Your task to perform on an android device: open app "DoorDash - Food Delivery" (install if not already installed) and go to login screen Image 0: 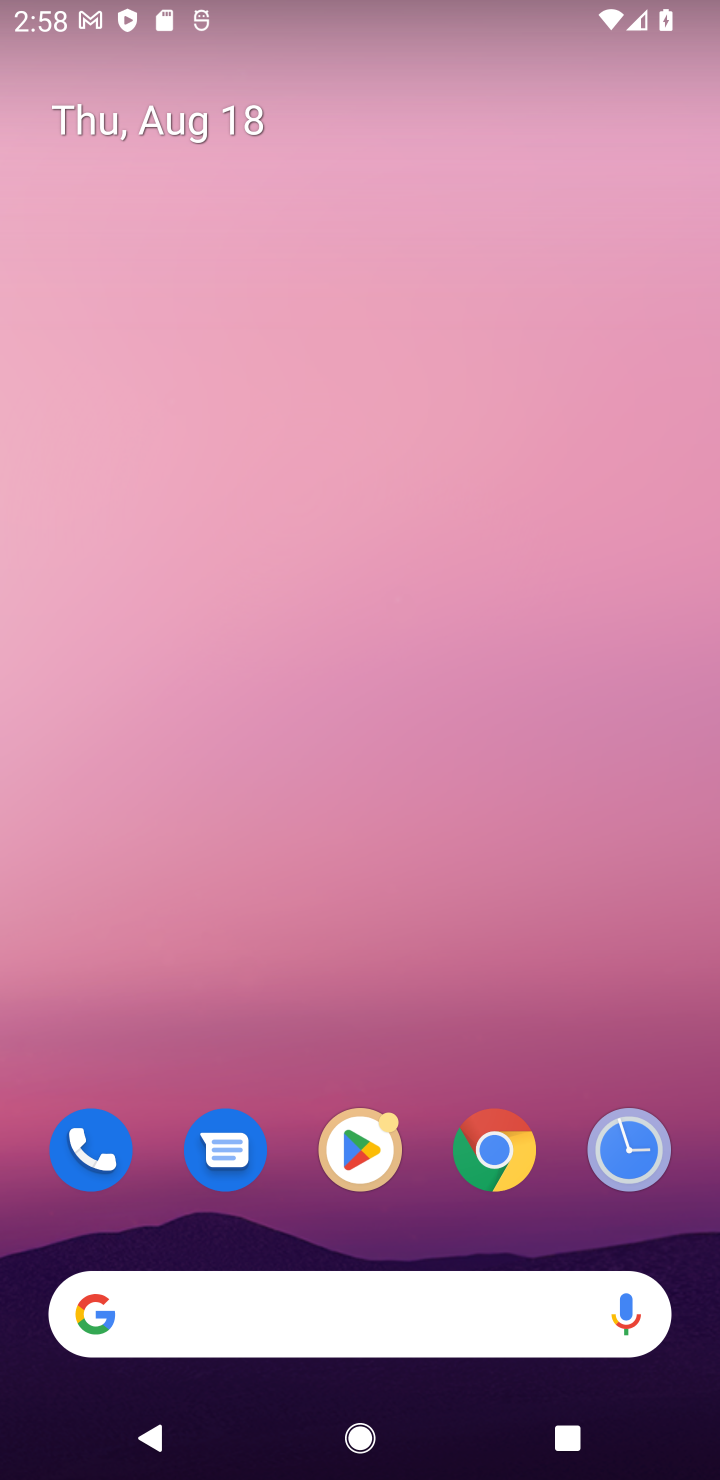
Step 0: click (366, 1150)
Your task to perform on an android device: open app "DoorDash - Food Delivery" (install if not already installed) and go to login screen Image 1: 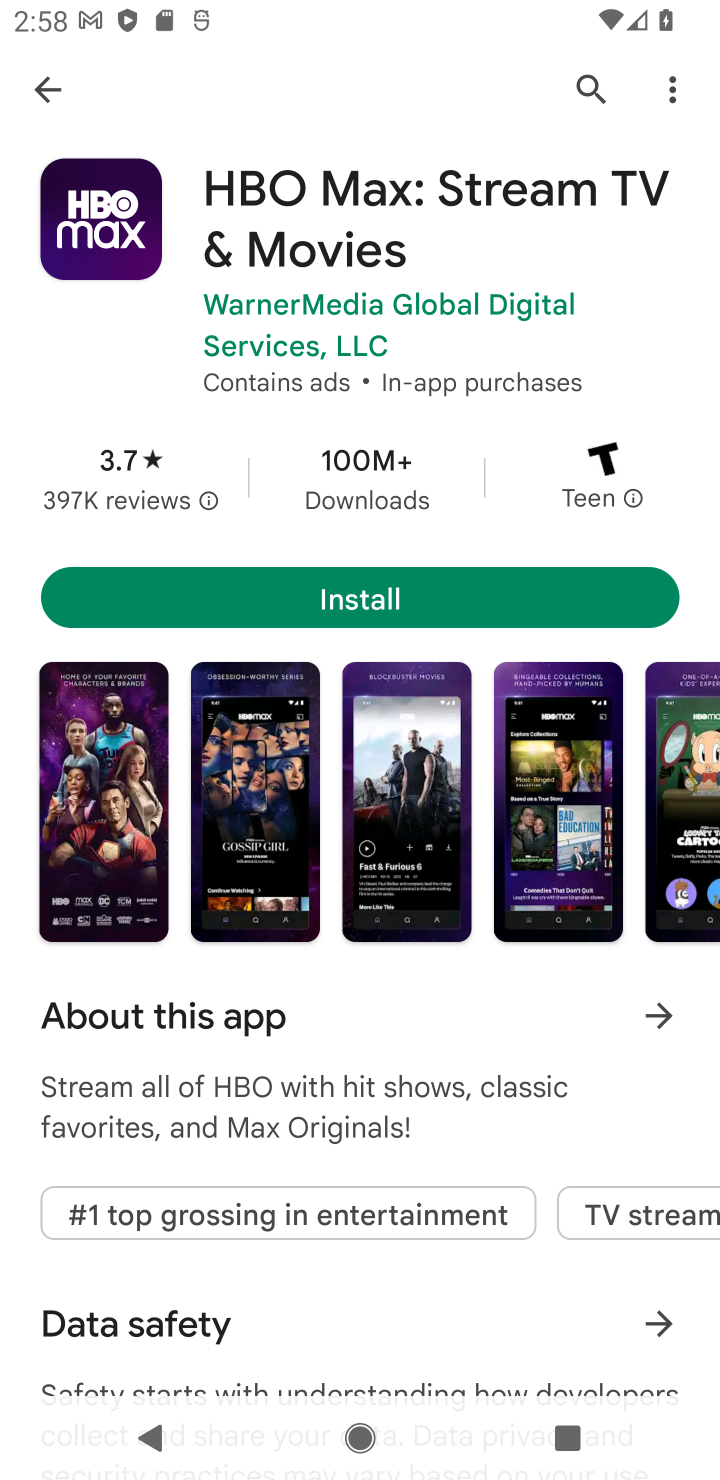
Step 1: click (578, 84)
Your task to perform on an android device: open app "DoorDash - Food Delivery" (install if not already installed) and go to login screen Image 2: 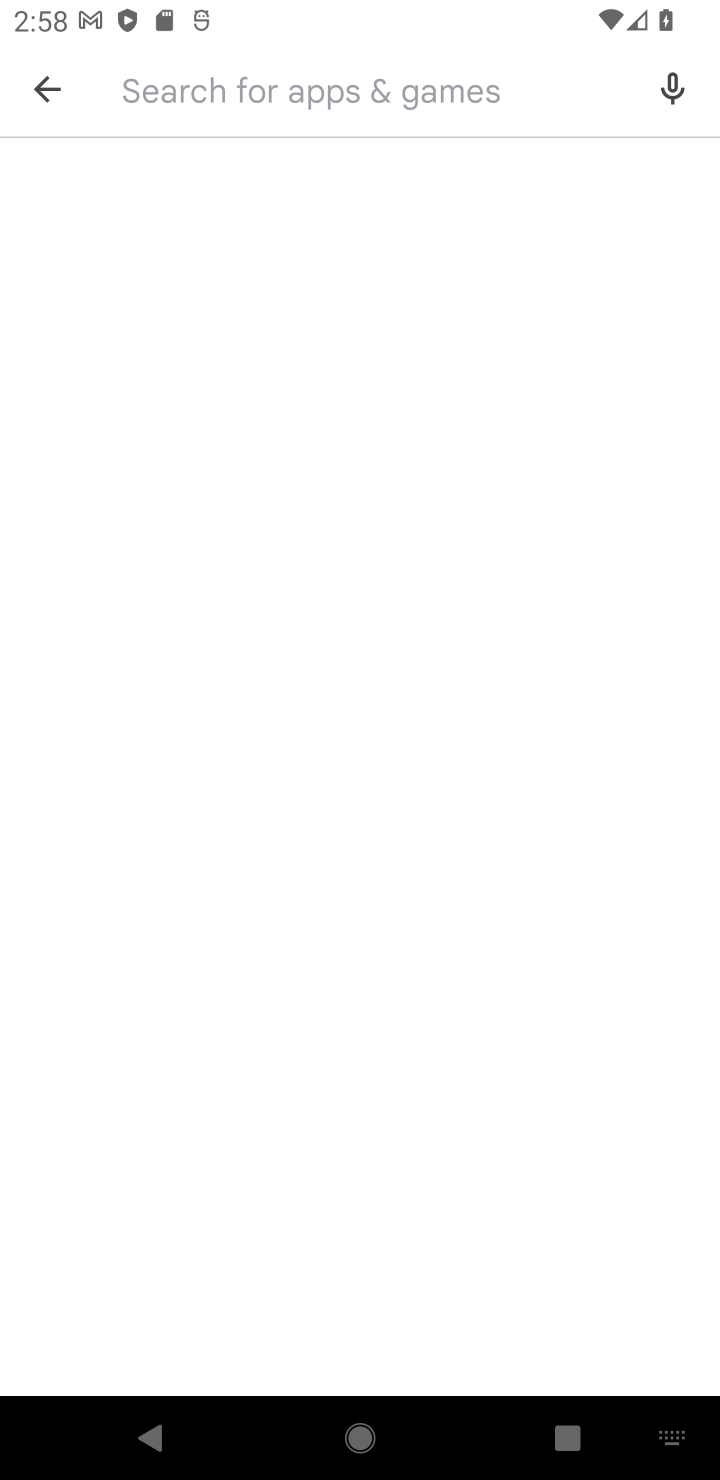
Step 2: type "DoorDash - Food Delivery"
Your task to perform on an android device: open app "DoorDash - Food Delivery" (install if not already installed) and go to login screen Image 3: 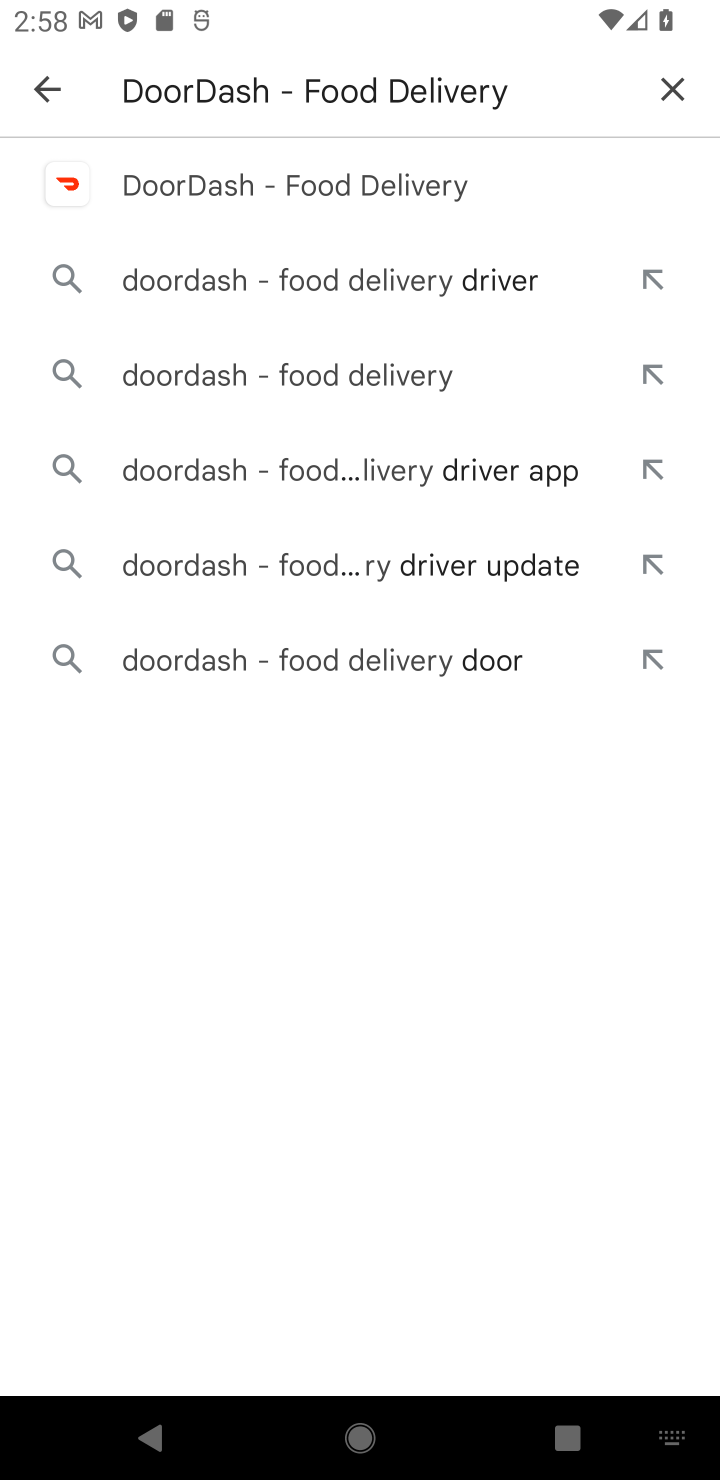
Step 3: click (308, 186)
Your task to perform on an android device: open app "DoorDash - Food Delivery" (install if not already installed) and go to login screen Image 4: 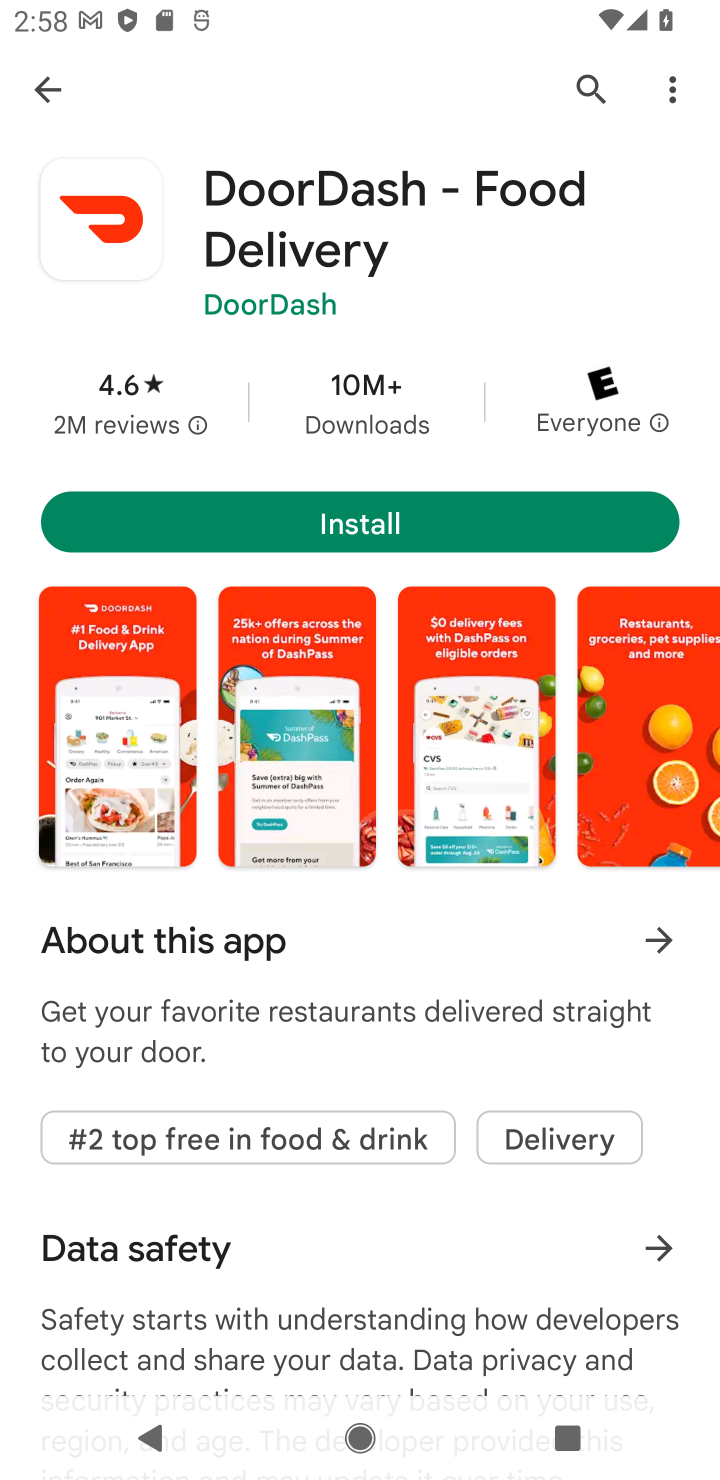
Step 4: click (349, 529)
Your task to perform on an android device: open app "DoorDash - Food Delivery" (install if not already installed) and go to login screen Image 5: 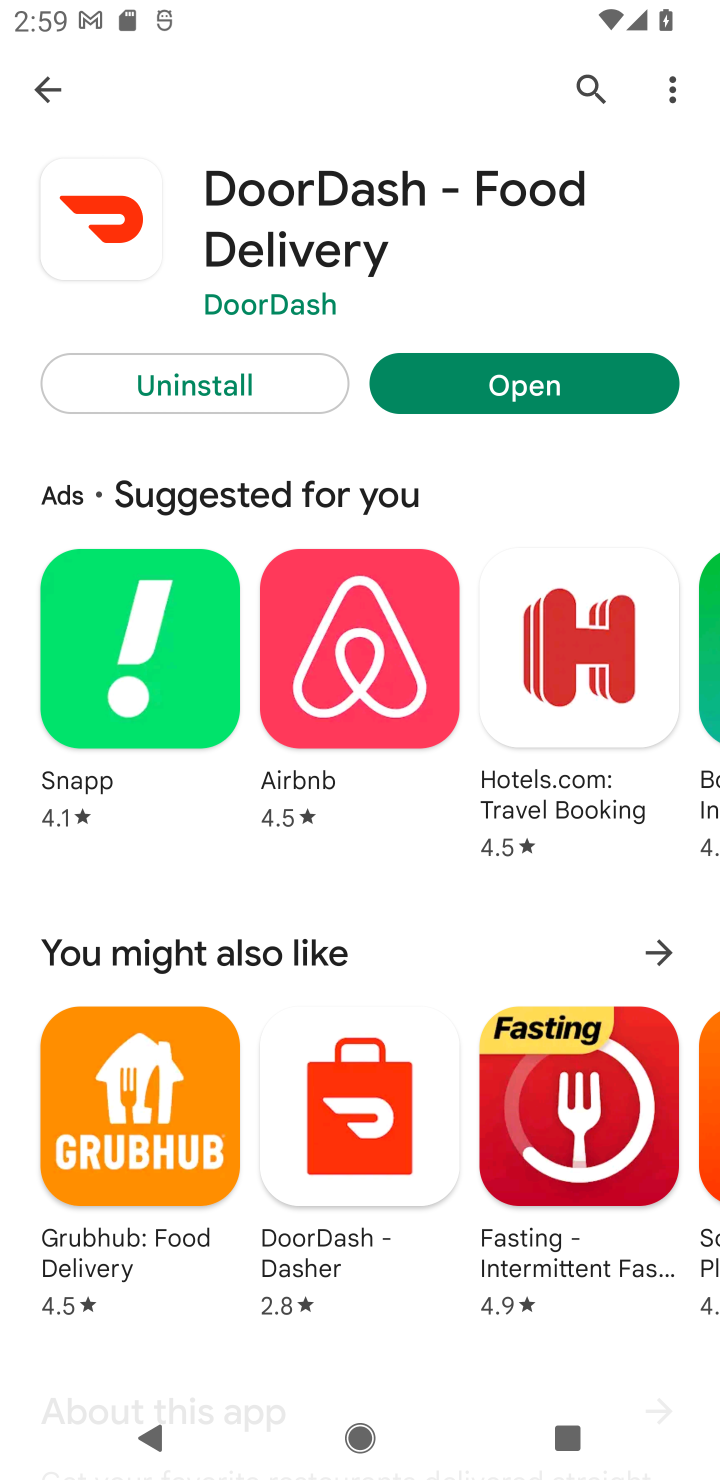
Step 5: click (526, 384)
Your task to perform on an android device: open app "DoorDash - Food Delivery" (install if not already installed) and go to login screen Image 6: 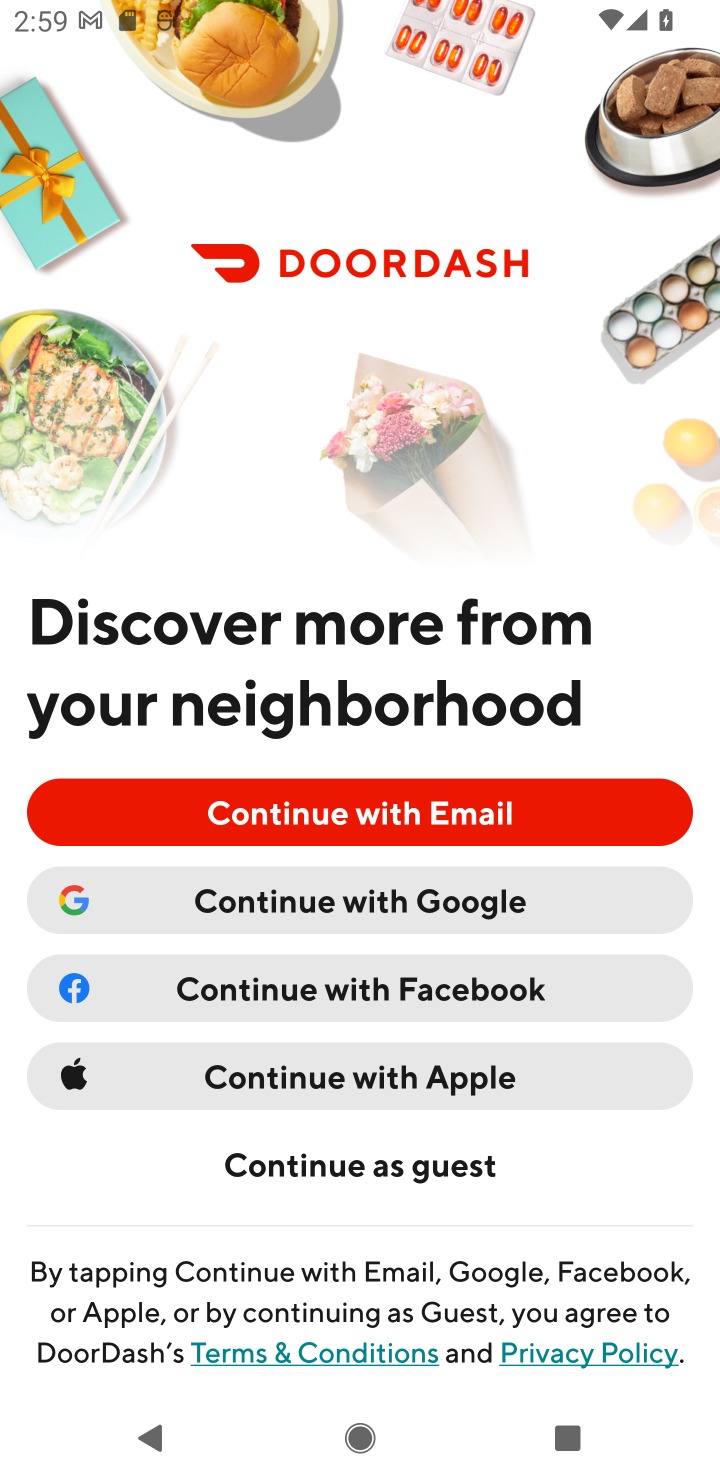
Step 6: task complete